Your task to perform on an android device: Go to network settings Image 0: 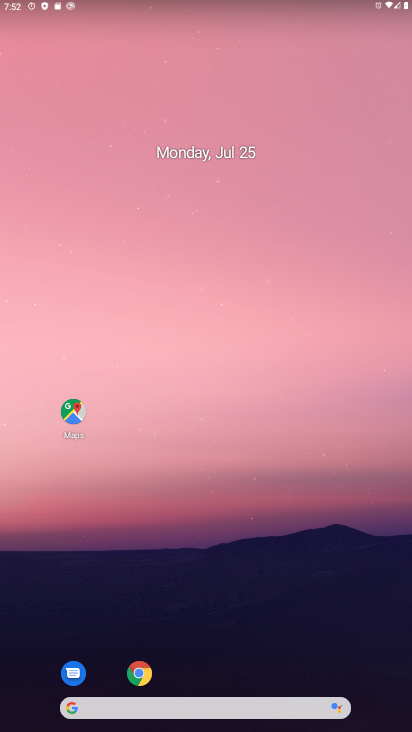
Step 0: drag from (293, 633) to (181, 10)
Your task to perform on an android device: Go to network settings Image 1: 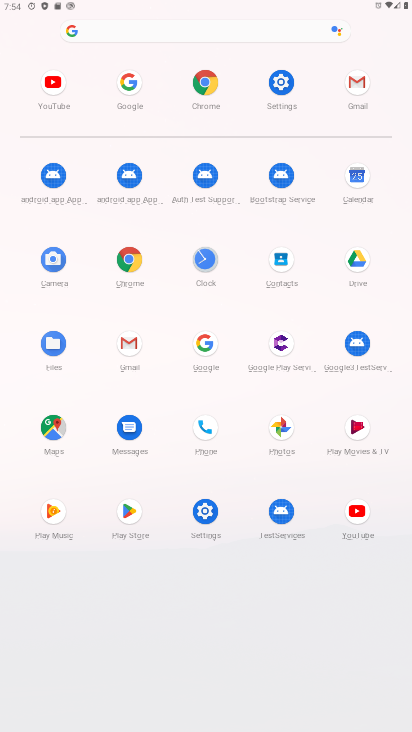
Step 1: click (195, 527)
Your task to perform on an android device: Go to network settings Image 2: 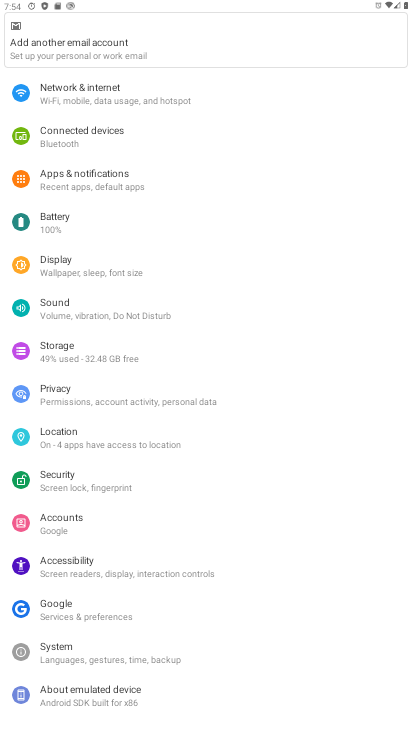
Step 2: click (64, 109)
Your task to perform on an android device: Go to network settings Image 3: 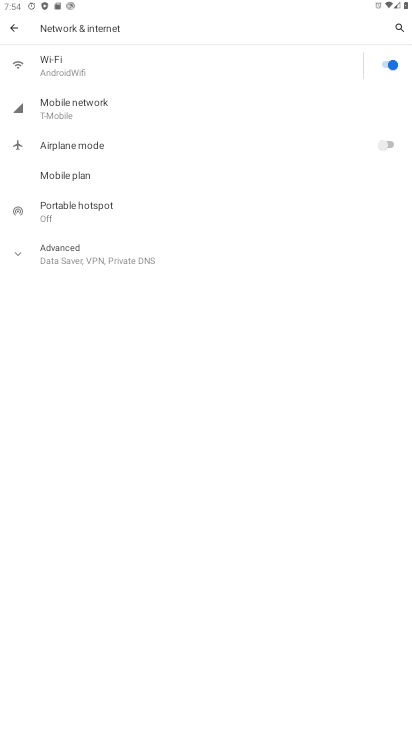
Step 3: task complete